Your task to perform on an android device: When is my next meeting? Image 0: 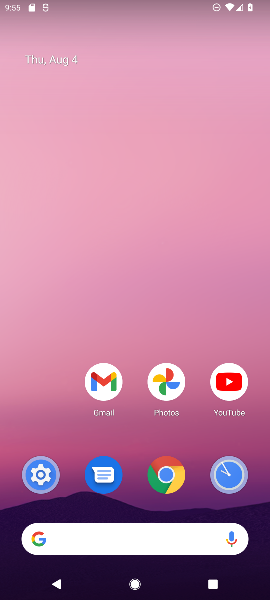
Step 0: drag from (133, 512) to (209, 99)
Your task to perform on an android device: When is my next meeting? Image 1: 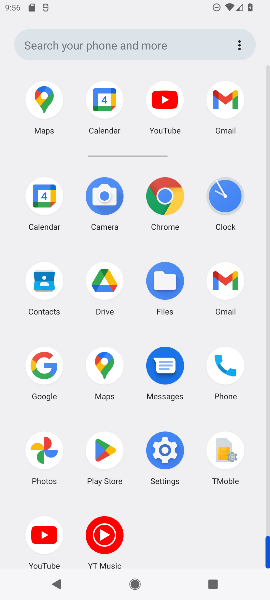
Step 1: click (37, 188)
Your task to perform on an android device: When is my next meeting? Image 2: 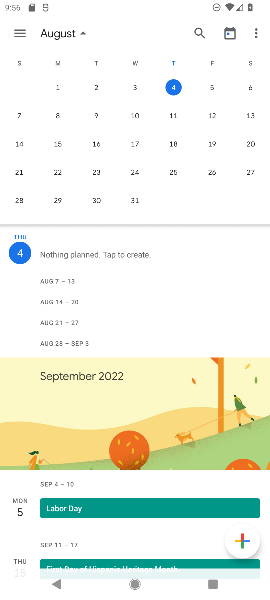
Step 2: click (218, 35)
Your task to perform on an android device: When is my next meeting? Image 3: 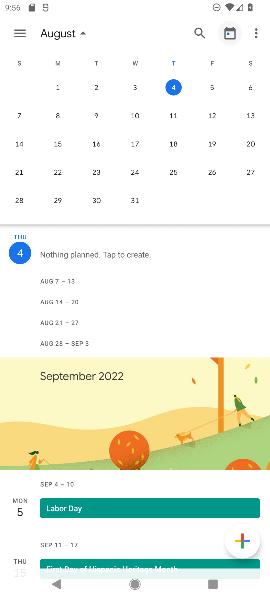
Step 3: click (218, 35)
Your task to perform on an android device: When is my next meeting? Image 4: 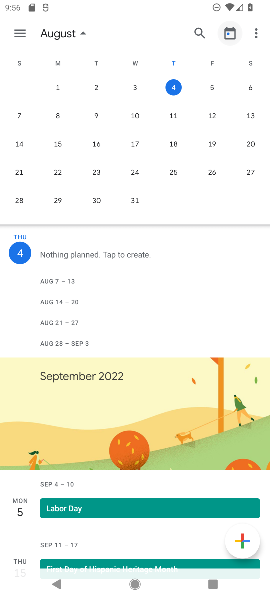
Step 4: click (222, 33)
Your task to perform on an android device: When is my next meeting? Image 5: 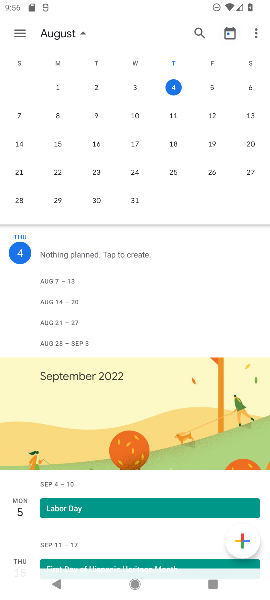
Step 5: click (225, 33)
Your task to perform on an android device: When is my next meeting? Image 6: 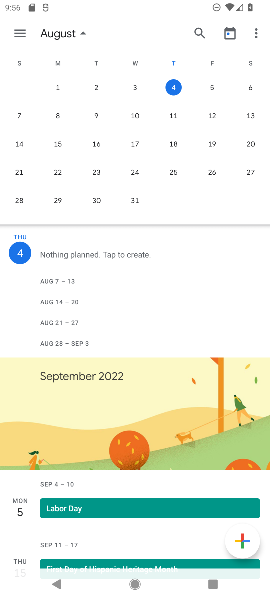
Step 6: click (225, 33)
Your task to perform on an android device: When is my next meeting? Image 7: 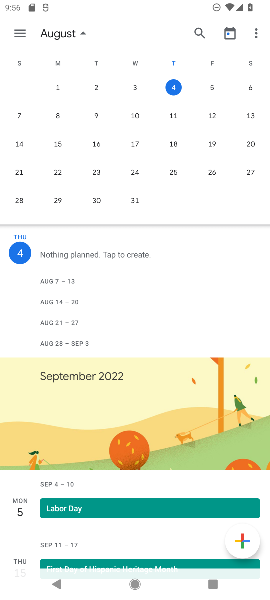
Step 7: click (170, 323)
Your task to perform on an android device: When is my next meeting? Image 8: 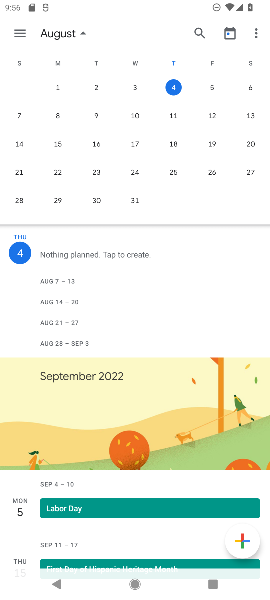
Step 8: click (229, 38)
Your task to perform on an android device: When is my next meeting? Image 9: 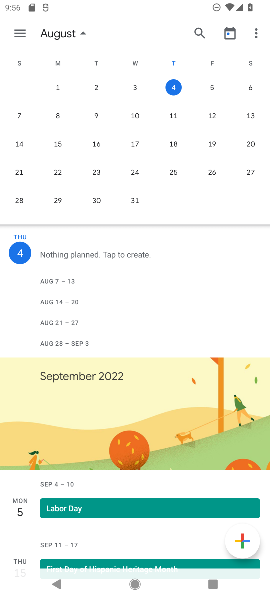
Step 9: click (68, 30)
Your task to perform on an android device: When is my next meeting? Image 10: 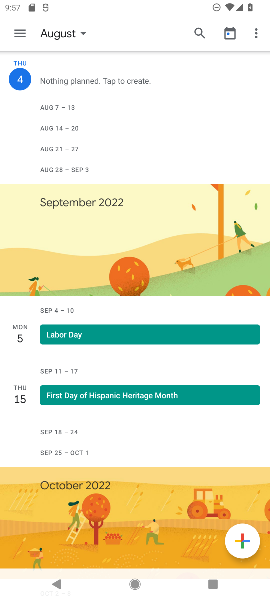
Step 10: drag from (114, 427) to (169, 109)
Your task to perform on an android device: When is my next meeting? Image 11: 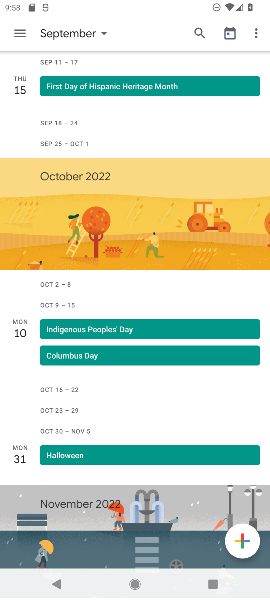
Step 11: click (87, 36)
Your task to perform on an android device: When is my next meeting? Image 12: 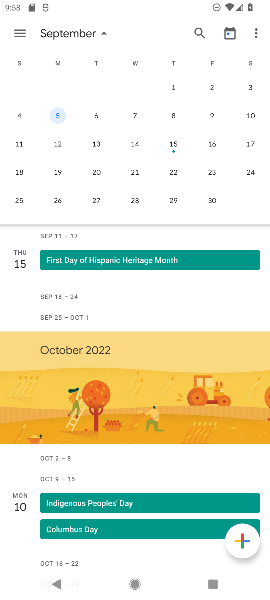
Step 12: click (228, 37)
Your task to perform on an android device: When is my next meeting? Image 13: 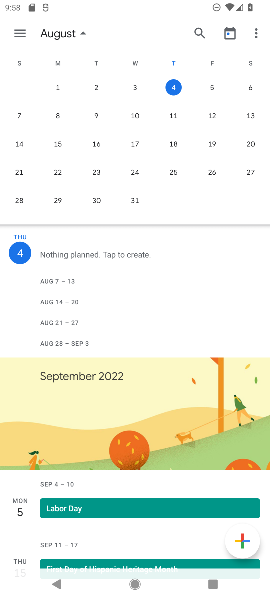
Step 13: click (177, 84)
Your task to perform on an android device: When is my next meeting? Image 14: 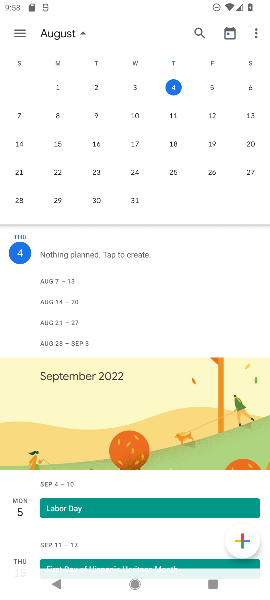
Step 14: task complete